Your task to perform on an android device: Open eBay Image 0: 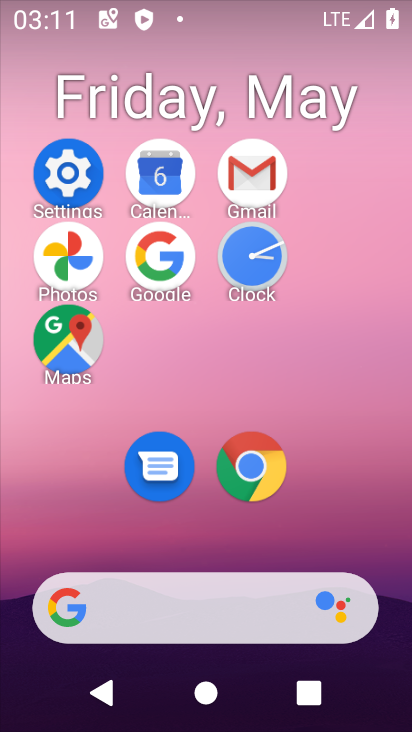
Step 0: click (254, 472)
Your task to perform on an android device: Open eBay Image 1: 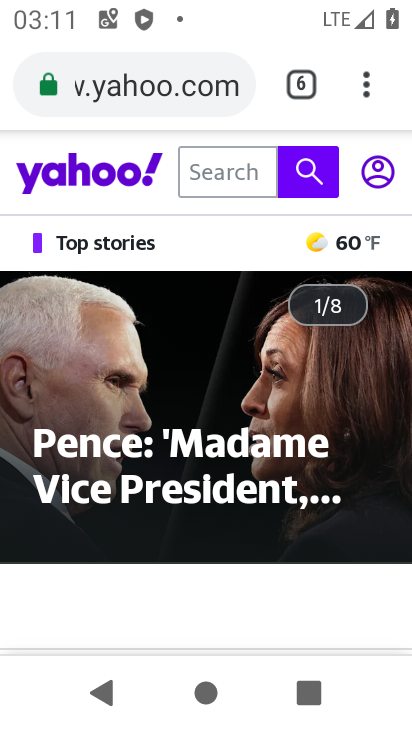
Step 1: click (305, 78)
Your task to perform on an android device: Open eBay Image 2: 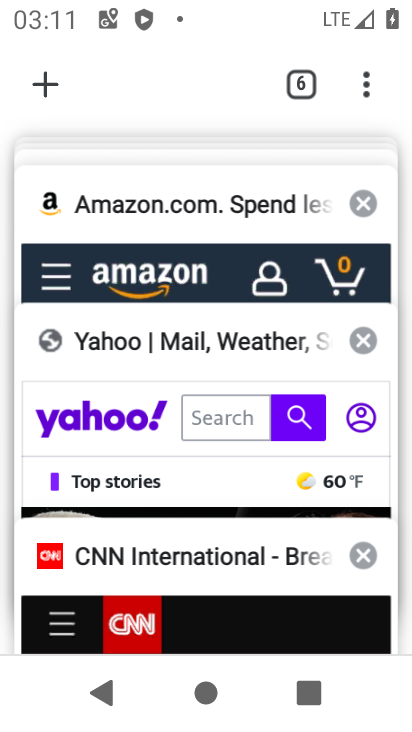
Step 2: drag from (237, 148) to (229, 432)
Your task to perform on an android device: Open eBay Image 3: 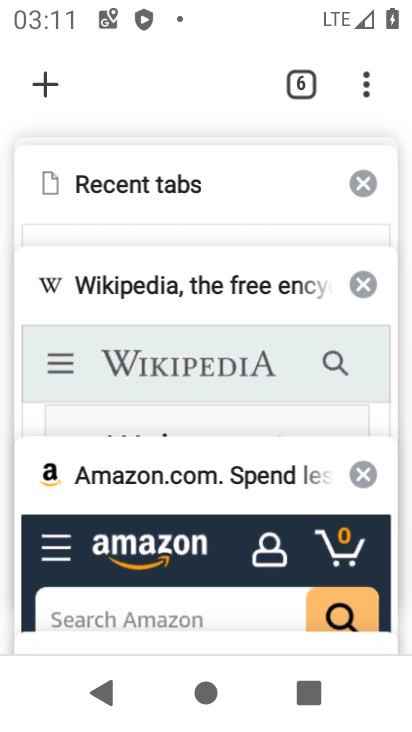
Step 3: drag from (222, 182) to (222, 422)
Your task to perform on an android device: Open eBay Image 4: 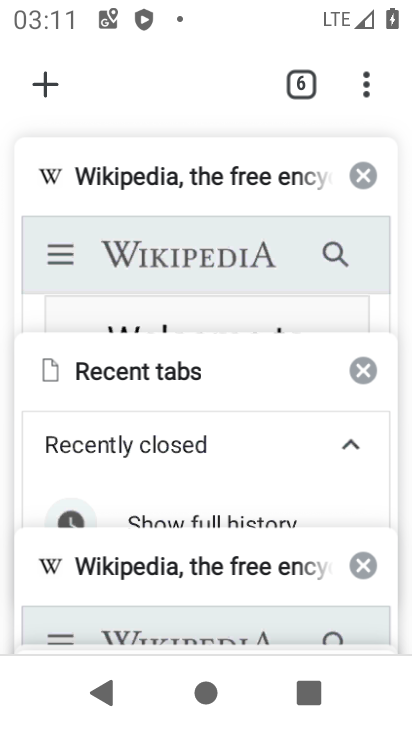
Step 4: drag from (233, 198) to (230, 451)
Your task to perform on an android device: Open eBay Image 5: 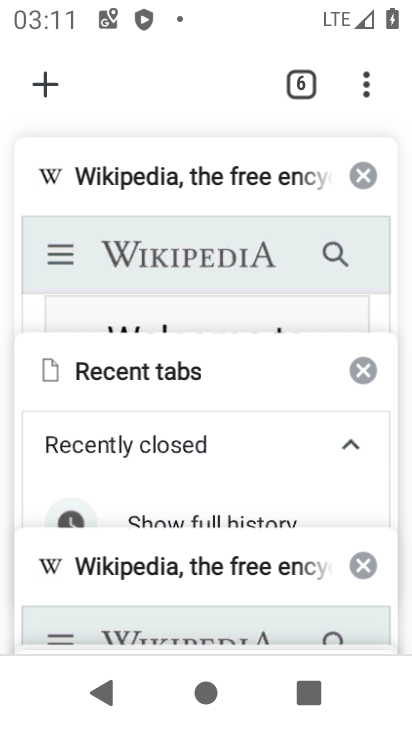
Step 5: click (51, 78)
Your task to perform on an android device: Open eBay Image 6: 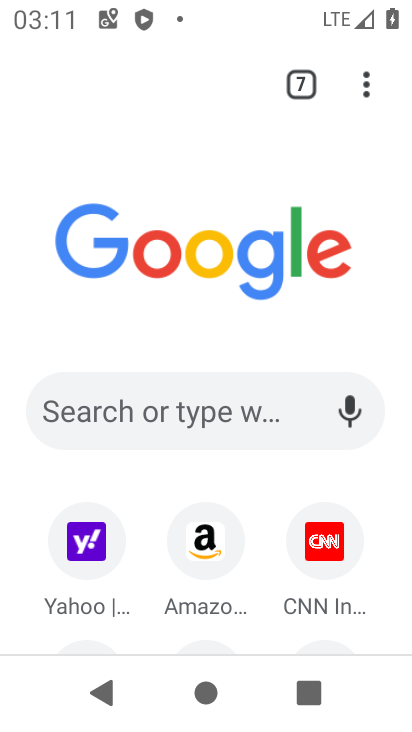
Step 6: drag from (239, 488) to (273, 192)
Your task to perform on an android device: Open eBay Image 7: 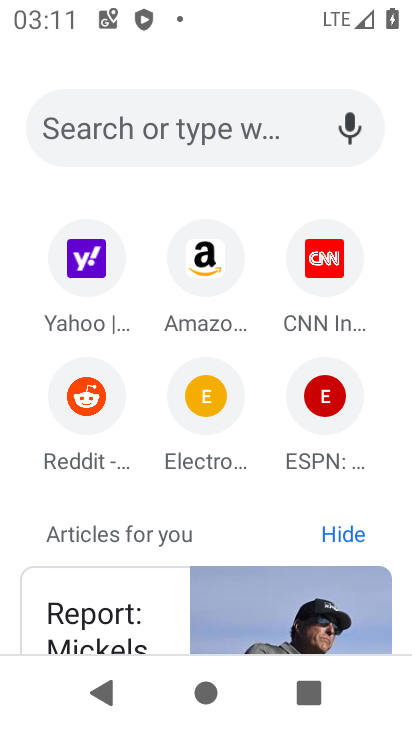
Step 7: click (208, 386)
Your task to perform on an android device: Open eBay Image 8: 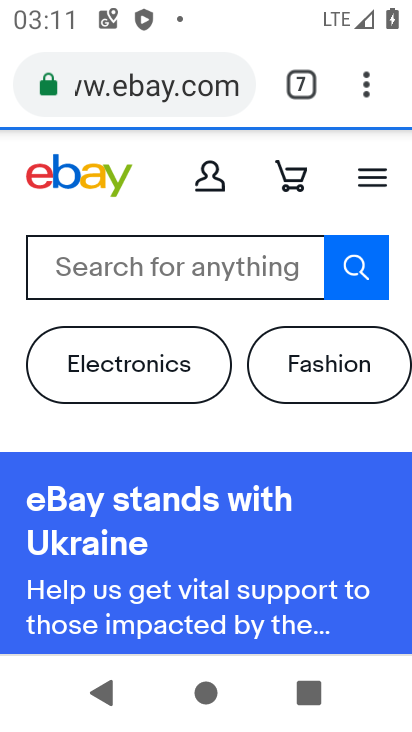
Step 8: task complete